Your task to perform on an android device: allow notifications from all sites in the chrome app Image 0: 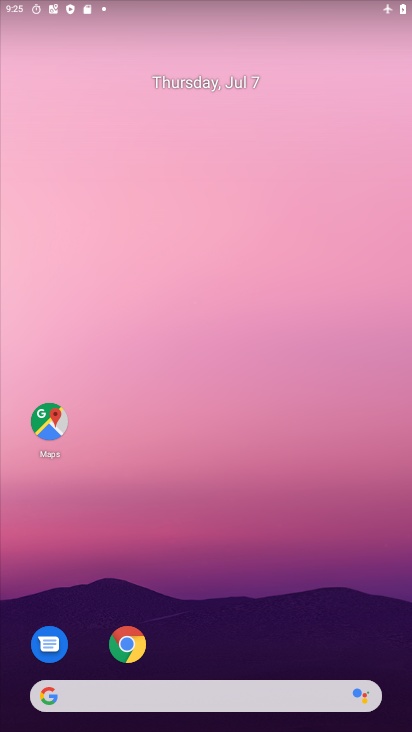
Step 0: drag from (268, 582) to (243, 146)
Your task to perform on an android device: allow notifications from all sites in the chrome app Image 1: 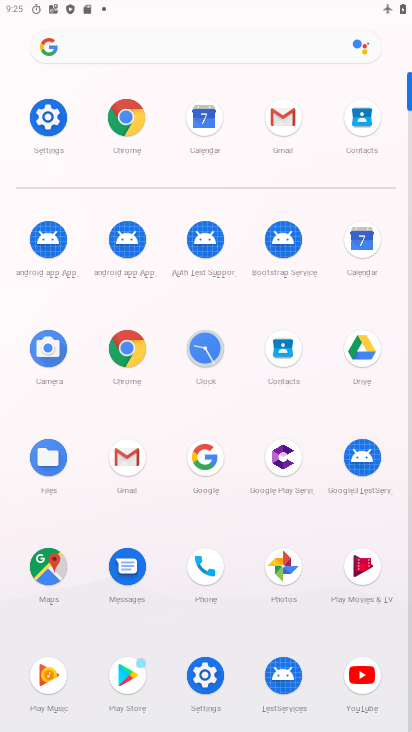
Step 1: click (130, 119)
Your task to perform on an android device: allow notifications from all sites in the chrome app Image 2: 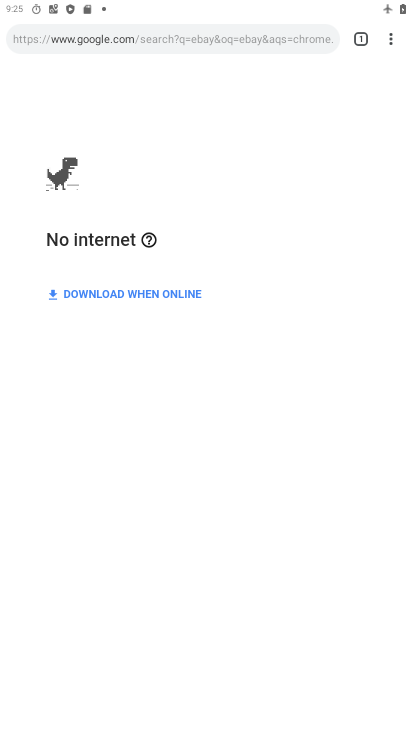
Step 2: click (393, 36)
Your task to perform on an android device: allow notifications from all sites in the chrome app Image 3: 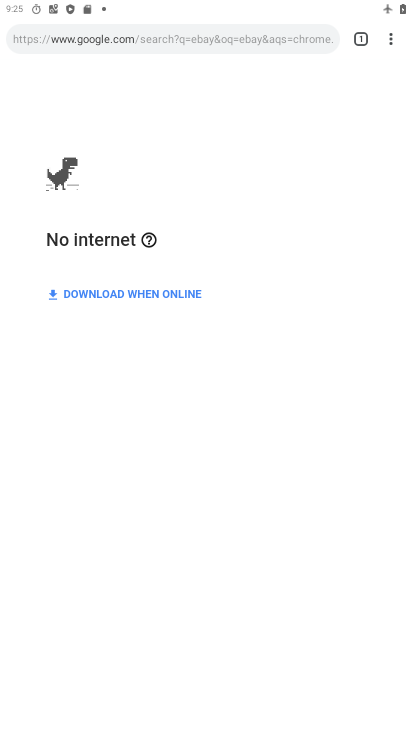
Step 3: drag from (393, 36) to (251, 444)
Your task to perform on an android device: allow notifications from all sites in the chrome app Image 4: 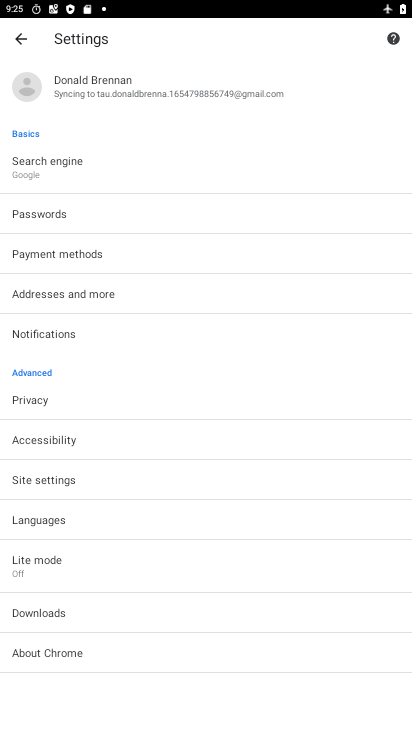
Step 4: click (45, 344)
Your task to perform on an android device: allow notifications from all sites in the chrome app Image 5: 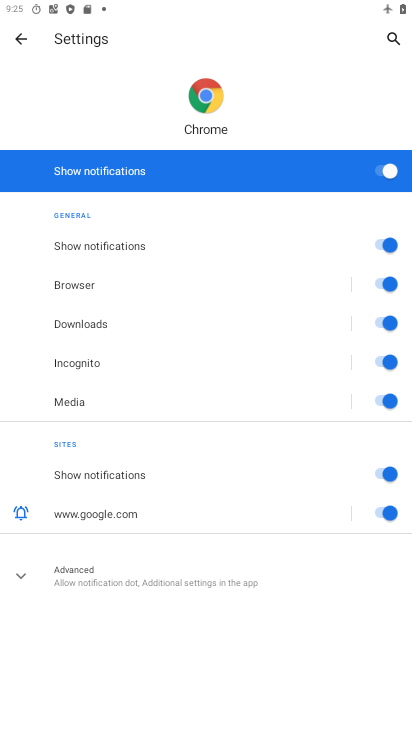
Step 5: task complete